Your task to perform on an android device: empty trash in google photos Image 0: 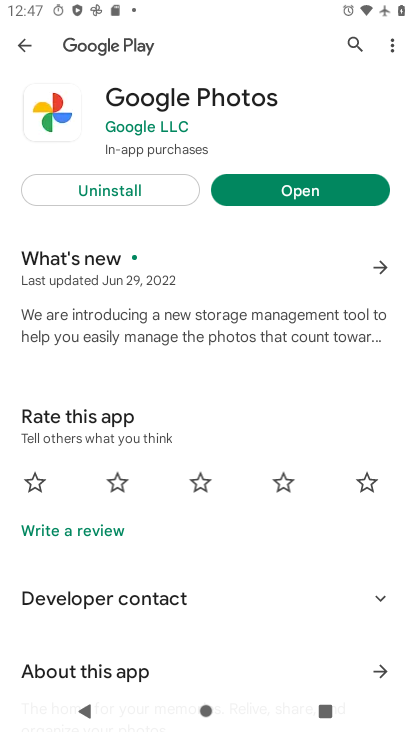
Step 0: press home button
Your task to perform on an android device: empty trash in google photos Image 1: 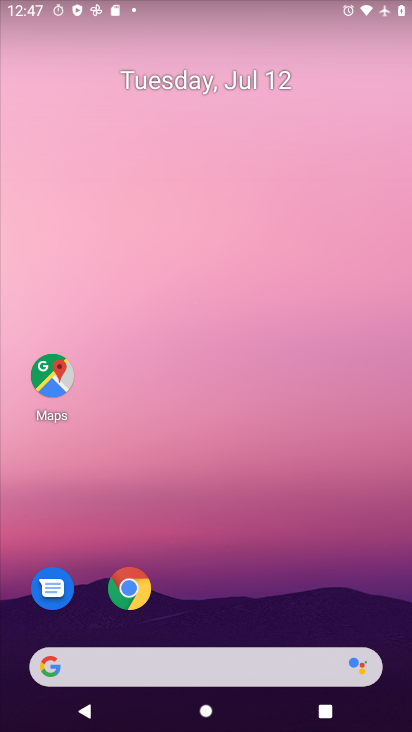
Step 1: drag from (216, 664) to (346, 9)
Your task to perform on an android device: empty trash in google photos Image 2: 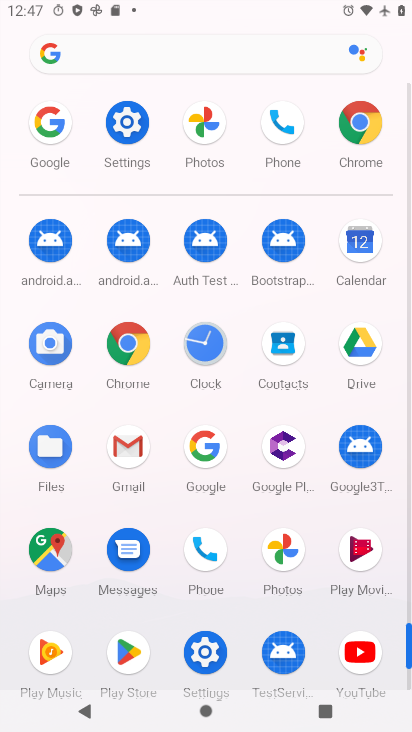
Step 2: click (279, 553)
Your task to perform on an android device: empty trash in google photos Image 3: 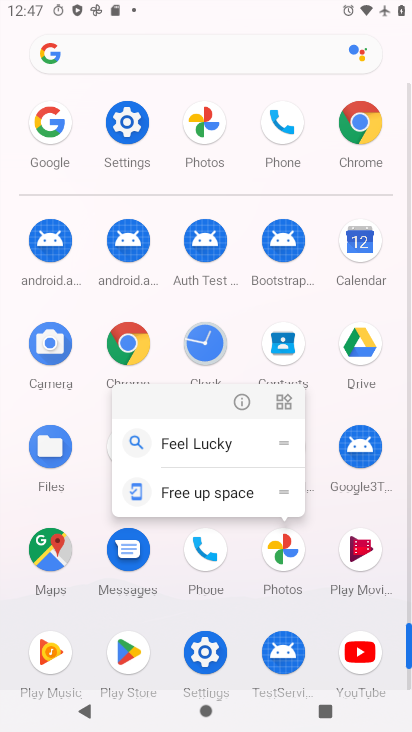
Step 3: click (285, 549)
Your task to perform on an android device: empty trash in google photos Image 4: 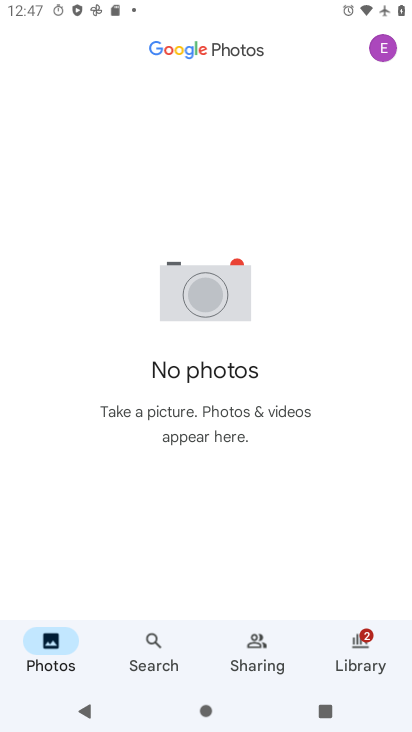
Step 4: click (382, 45)
Your task to perform on an android device: empty trash in google photos Image 5: 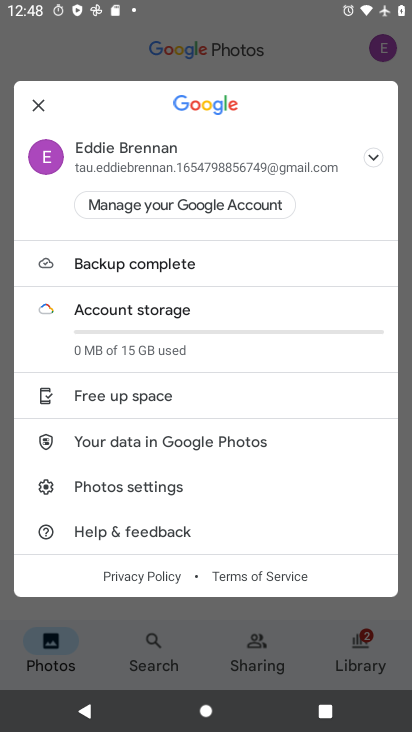
Step 5: click (269, 616)
Your task to perform on an android device: empty trash in google photos Image 6: 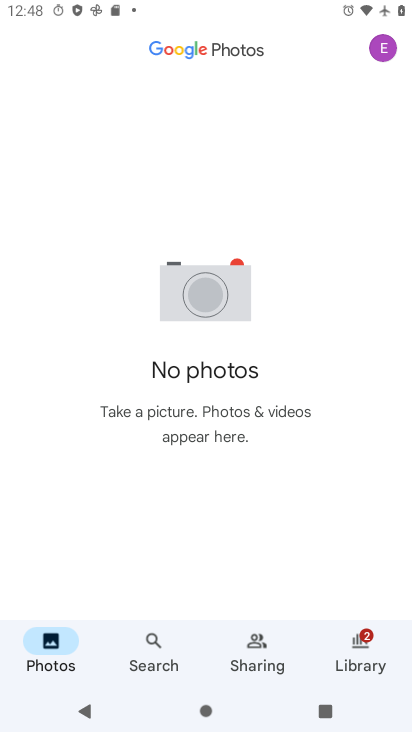
Step 6: click (356, 641)
Your task to perform on an android device: empty trash in google photos Image 7: 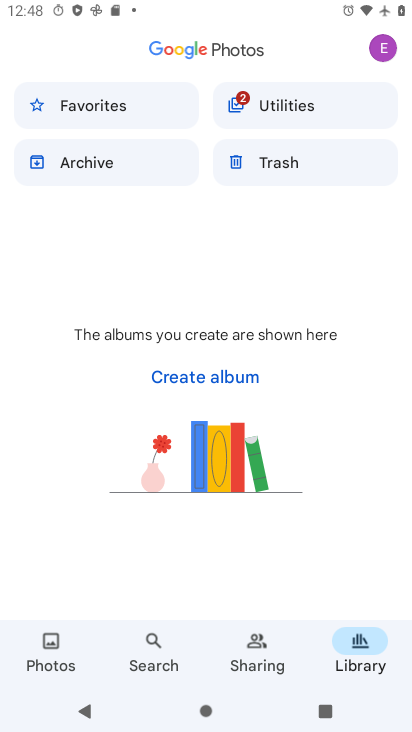
Step 7: click (296, 167)
Your task to perform on an android device: empty trash in google photos Image 8: 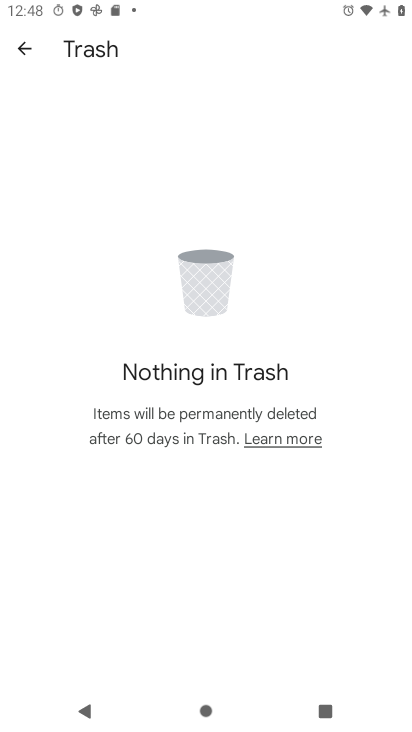
Step 8: task complete